Your task to perform on an android device: change notification settings in the gmail app Image 0: 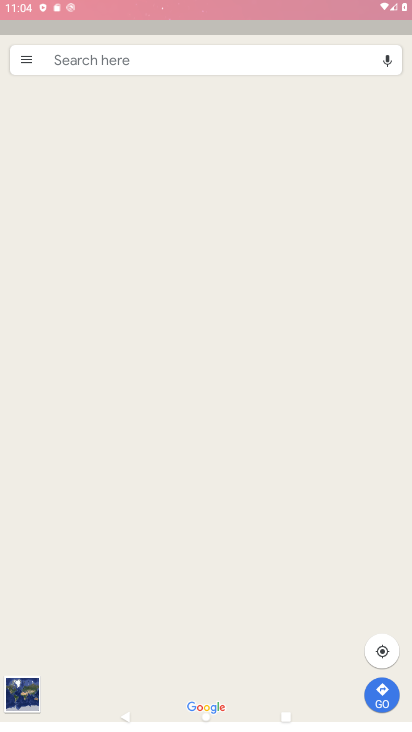
Step 0: drag from (360, 427) to (360, 192)
Your task to perform on an android device: change notification settings in the gmail app Image 1: 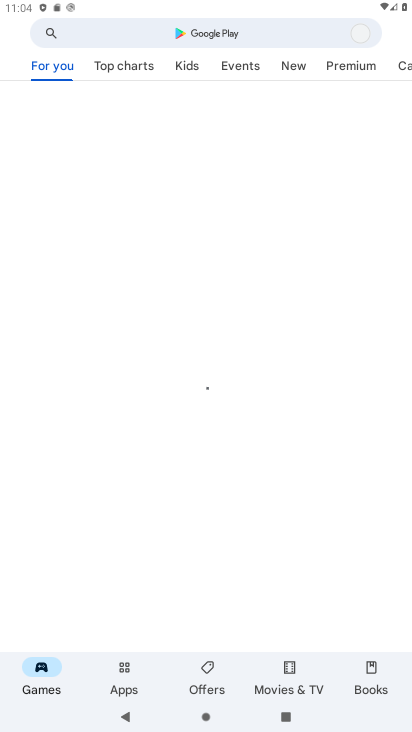
Step 1: press home button
Your task to perform on an android device: change notification settings in the gmail app Image 2: 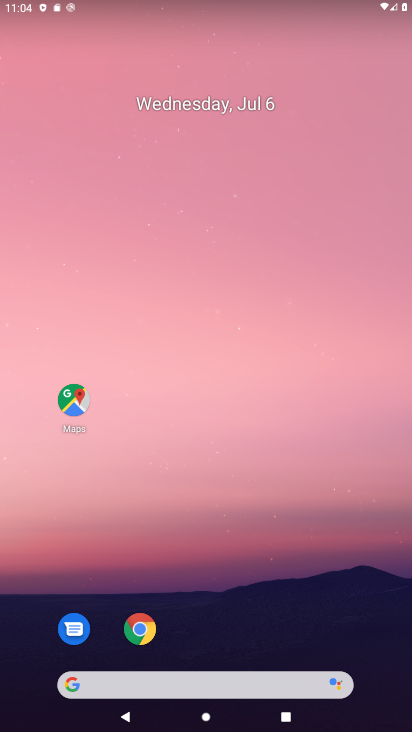
Step 2: drag from (343, 581) to (344, 105)
Your task to perform on an android device: change notification settings in the gmail app Image 3: 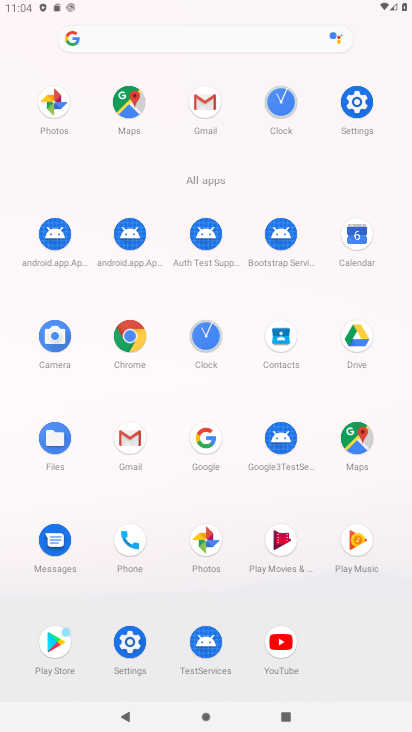
Step 3: click (128, 436)
Your task to perform on an android device: change notification settings in the gmail app Image 4: 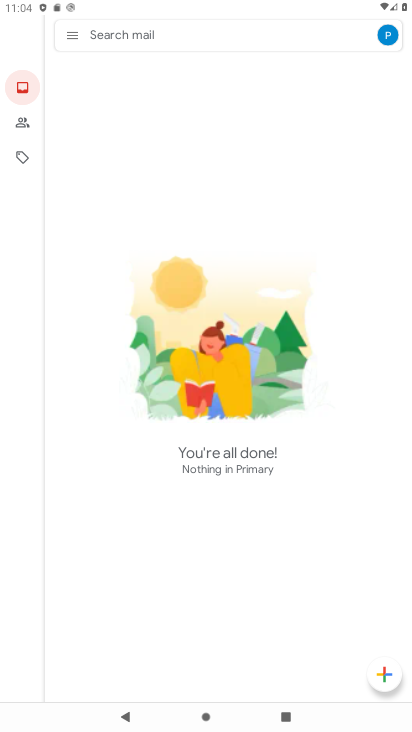
Step 4: click (70, 39)
Your task to perform on an android device: change notification settings in the gmail app Image 5: 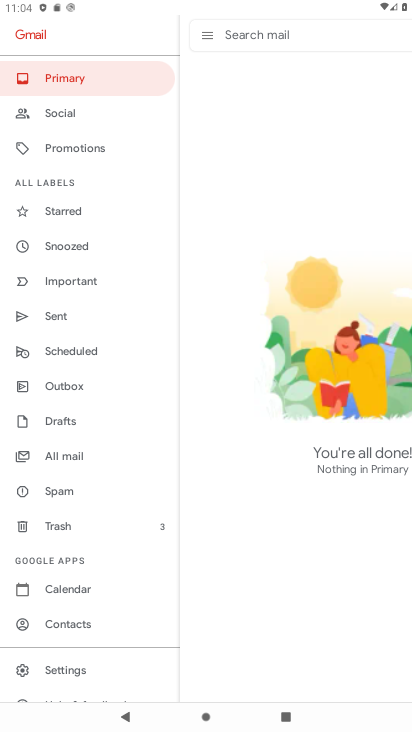
Step 5: drag from (135, 504) to (125, 226)
Your task to perform on an android device: change notification settings in the gmail app Image 6: 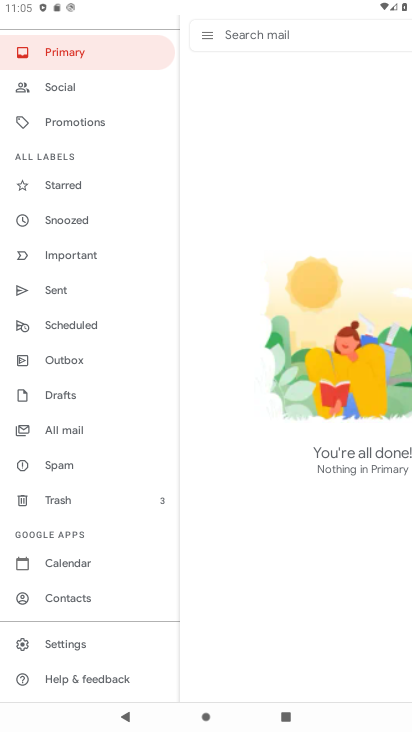
Step 6: click (94, 649)
Your task to perform on an android device: change notification settings in the gmail app Image 7: 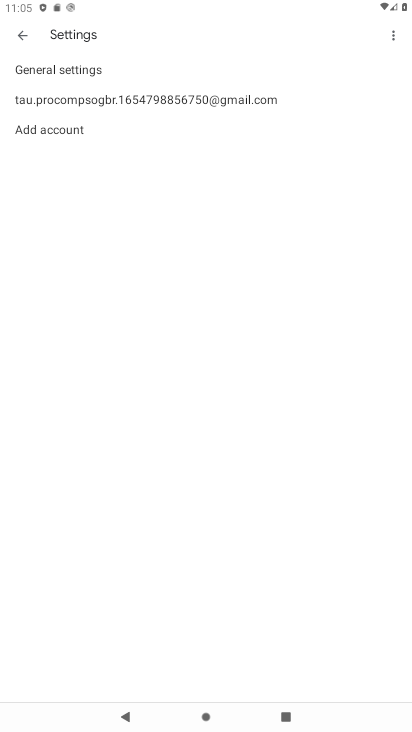
Step 7: click (246, 97)
Your task to perform on an android device: change notification settings in the gmail app Image 8: 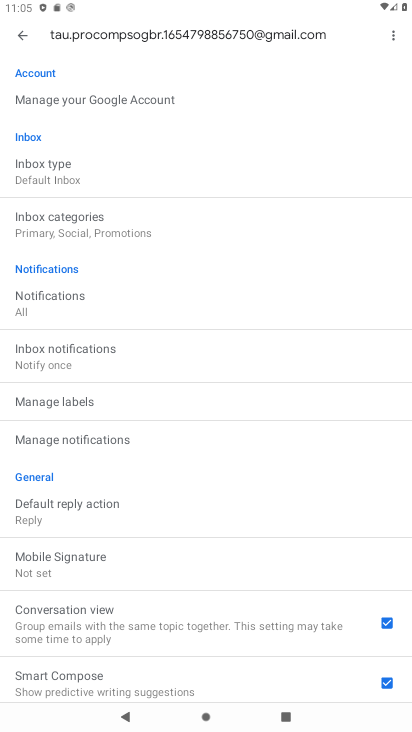
Step 8: drag from (281, 189) to (267, 343)
Your task to perform on an android device: change notification settings in the gmail app Image 9: 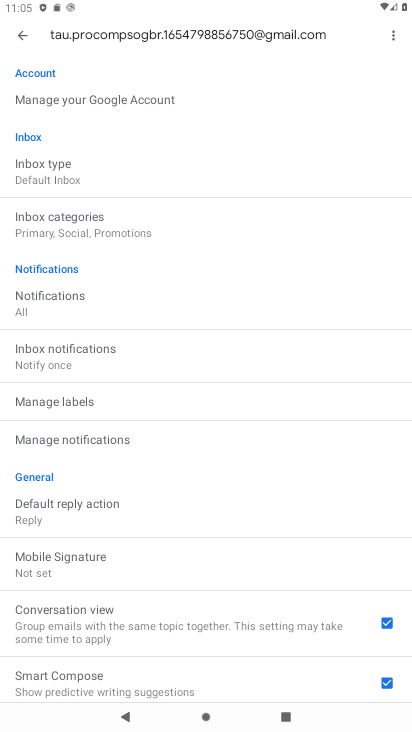
Step 9: click (86, 307)
Your task to perform on an android device: change notification settings in the gmail app Image 10: 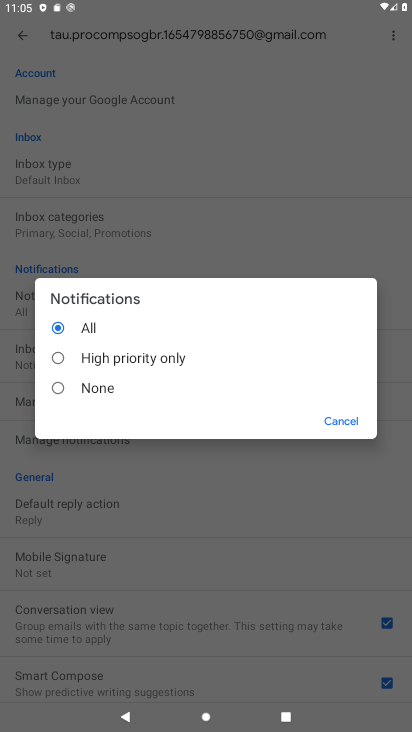
Step 10: click (136, 352)
Your task to perform on an android device: change notification settings in the gmail app Image 11: 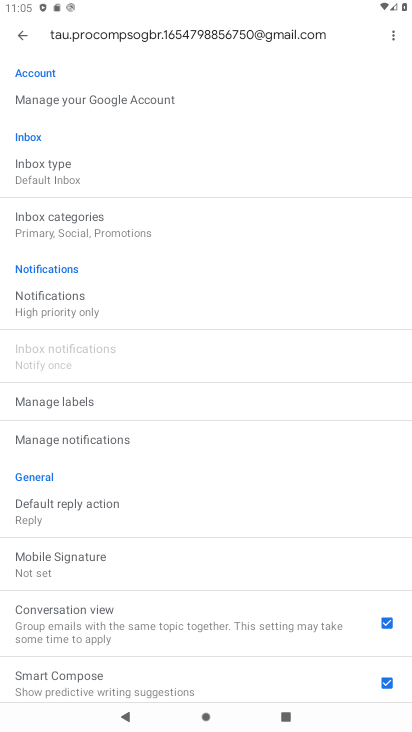
Step 11: task complete